Your task to perform on an android device: toggle priority inbox in the gmail app Image 0: 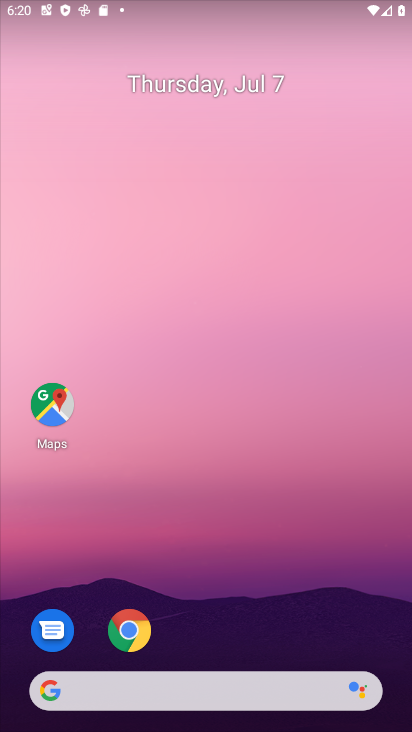
Step 0: drag from (177, 533) to (182, 80)
Your task to perform on an android device: toggle priority inbox in the gmail app Image 1: 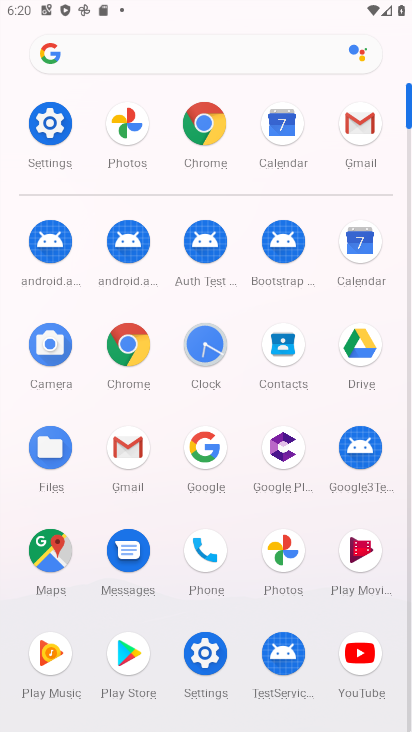
Step 1: click (369, 137)
Your task to perform on an android device: toggle priority inbox in the gmail app Image 2: 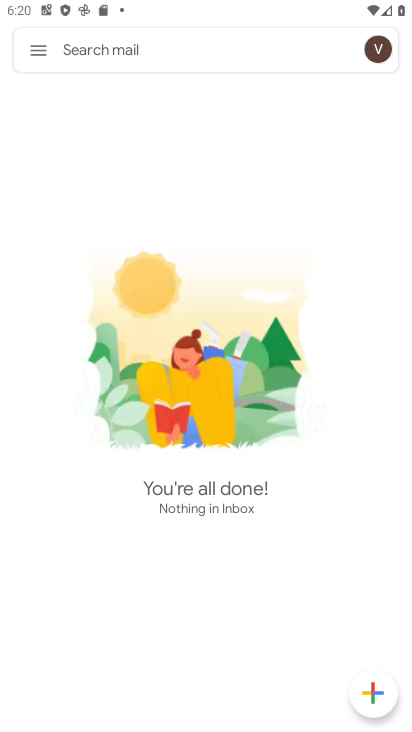
Step 2: click (36, 54)
Your task to perform on an android device: toggle priority inbox in the gmail app Image 3: 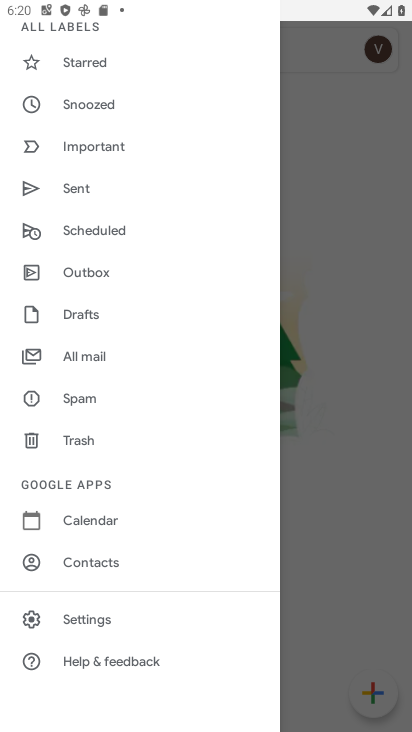
Step 3: click (80, 619)
Your task to perform on an android device: toggle priority inbox in the gmail app Image 4: 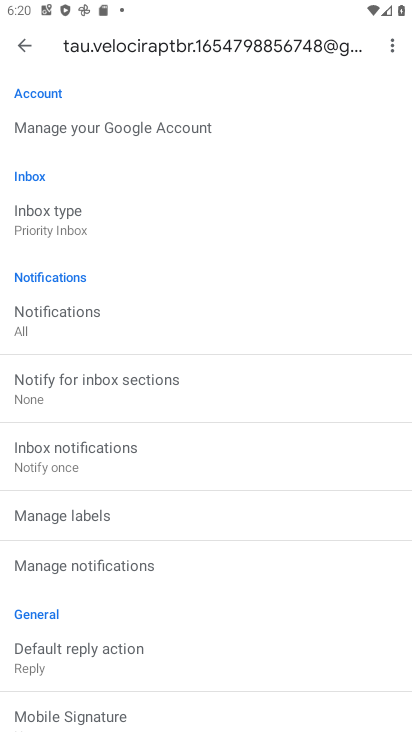
Step 4: click (77, 221)
Your task to perform on an android device: toggle priority inbox in the gmail app Image 5: 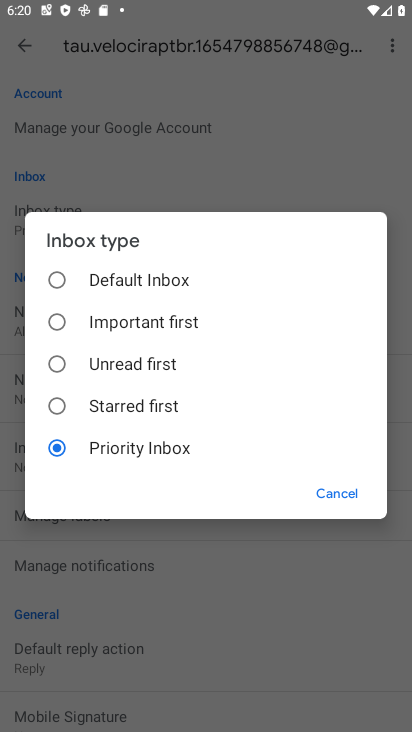
Step 5: click (58, 285)
Your task to perform on an android device: toggle priority inbox in the gmail app Image 6: 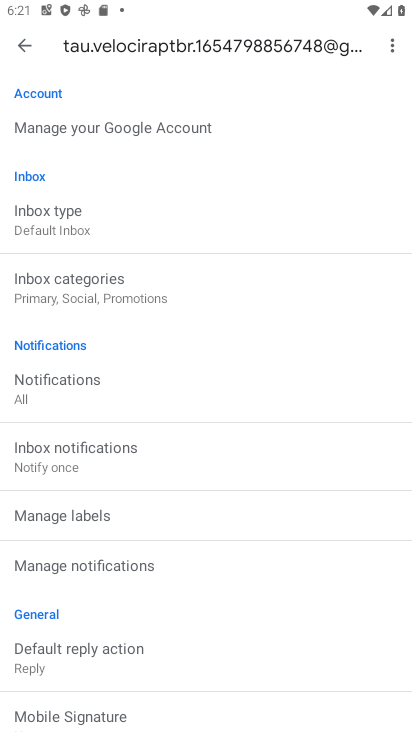
Step 6: task complete